Your task to perform on an android device: Do I have any events tomorrow? Image 0: 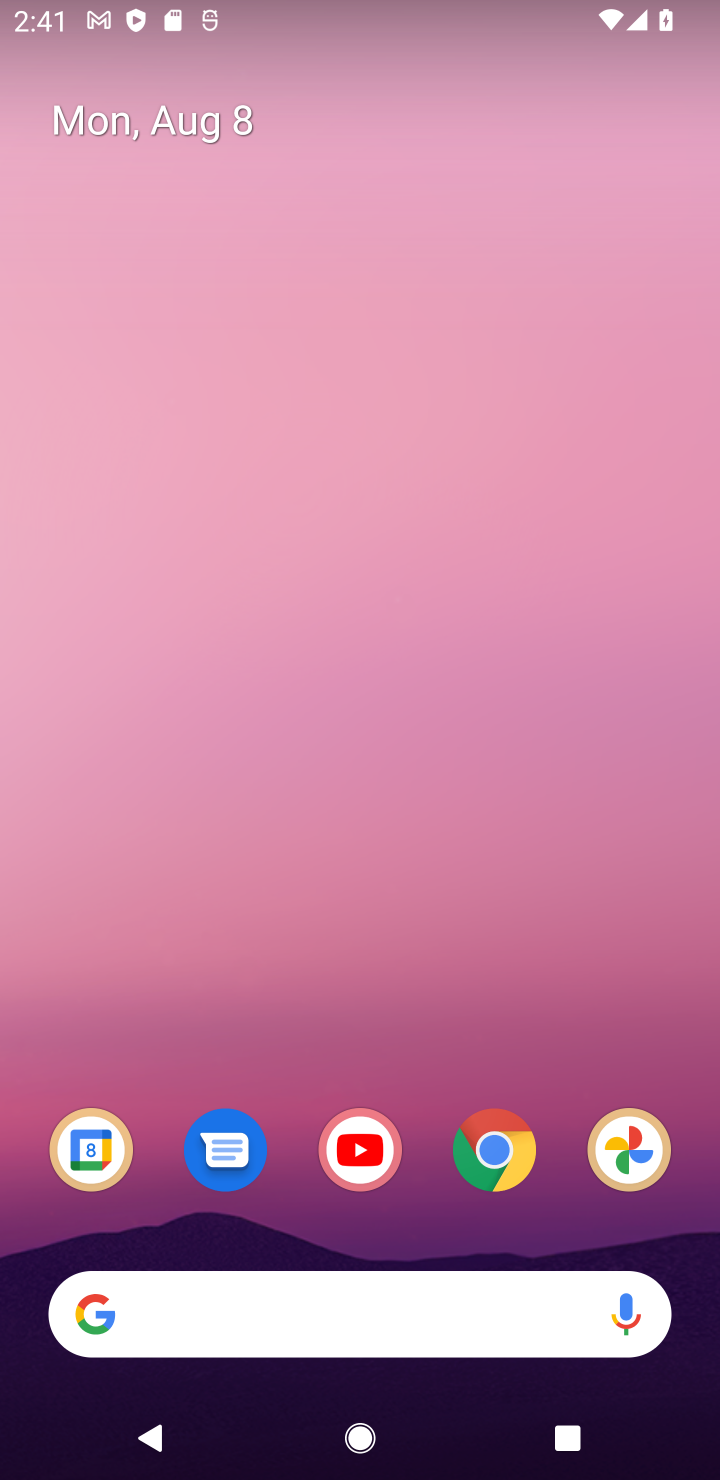
Step 0: drag from (305, 1243) to (437, 74)
Your task to perform on an android device: Do I have any events tomorrow? Image 1: 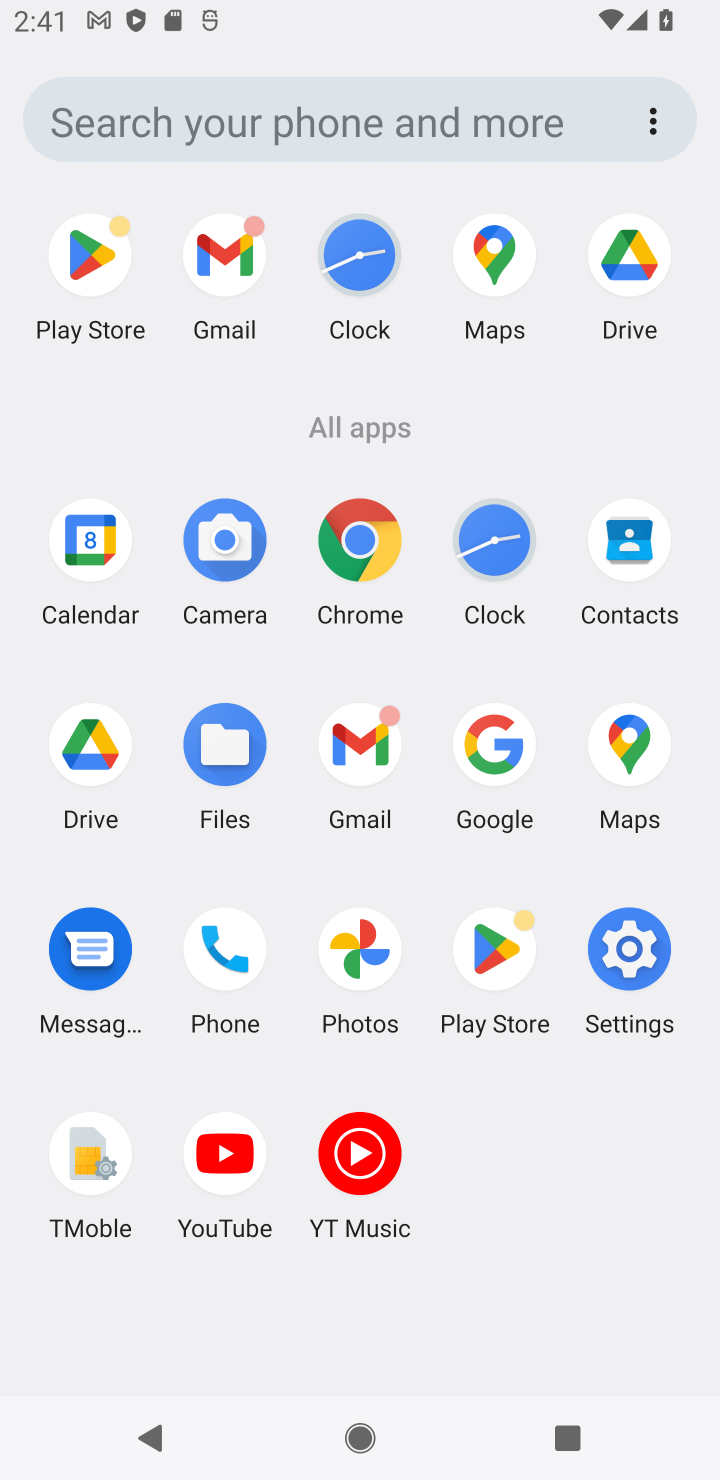
Step 1: click (50, 534)
Your task to perform on an android device: Do I have any events tomorrow? Image 2: 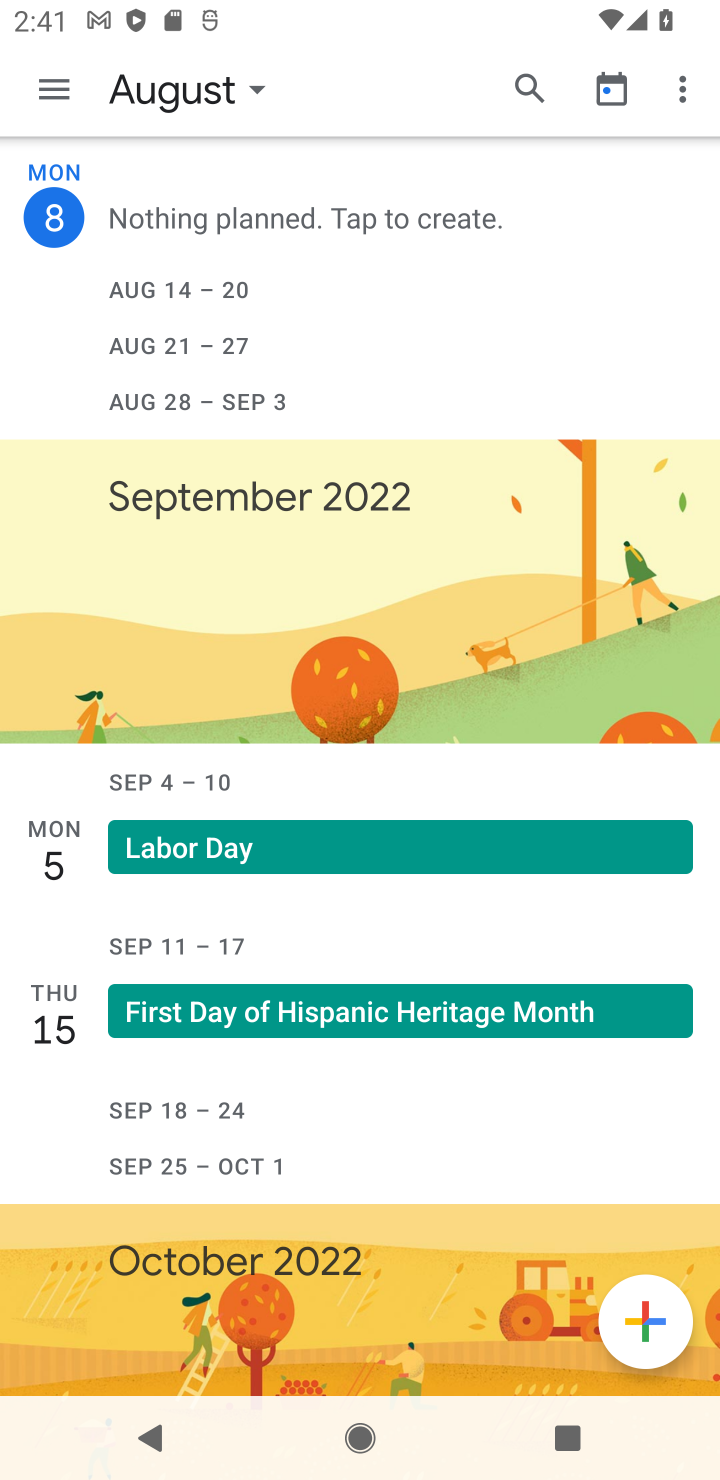
Step 2: task complete